Your task to perform on an android device: Open Yahoo.com Image 0: 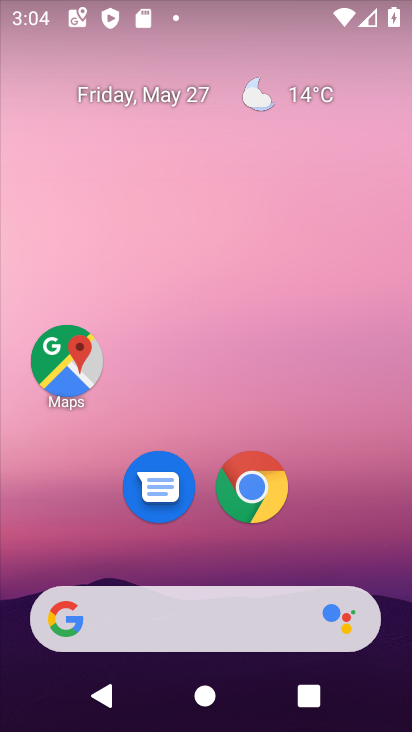
Step 0: click (260, 520)
Your task to perform on an android device: Open Yahoo.com Image 1: 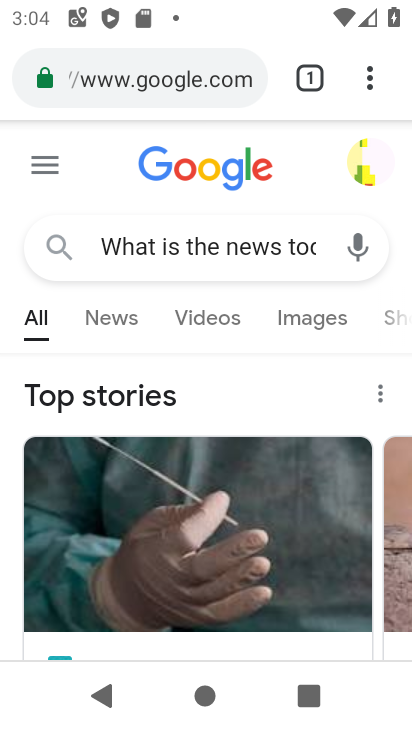
Step 1: click (142, 74)
Your task to perform on an android device: Open Yahoo.com Image 2: 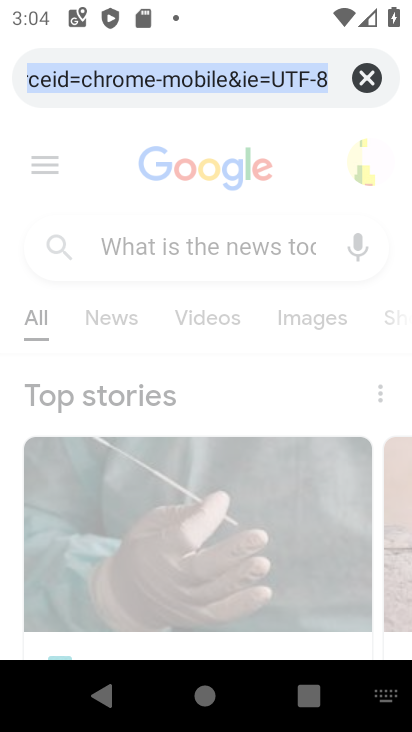
Step 2: click (353, 69)
Your task to perform on an android device: Open Yahoo.com Image 3: 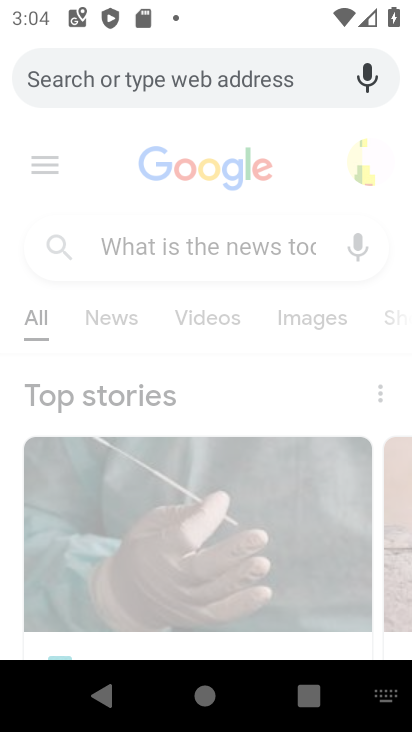
Step 3: type " Yahoo.com"
Your task to perform on an android device: Open Yahoo.com Image 4: 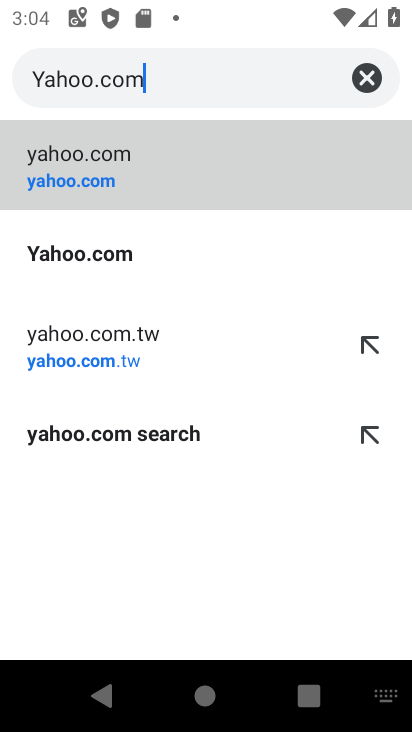
Step 4: click (307, 171)
Your task to perform on an android device: Open Yahoo.com Image 5: 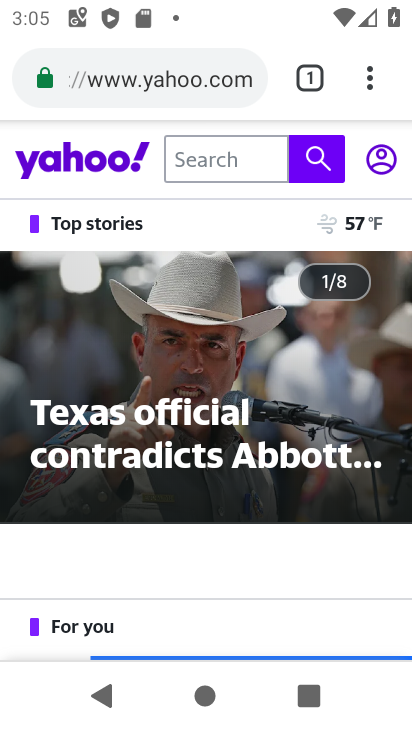
Step 5: task complete